Your task to perform on an android device: open a new tab in the chrome app Image 0: 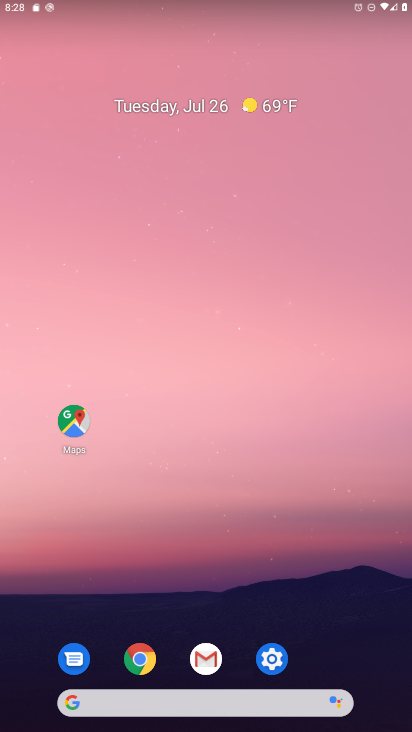
Step 0: click (135, 652)
Your task to perform on an android device: open a new tab in the chrome app Image 1: 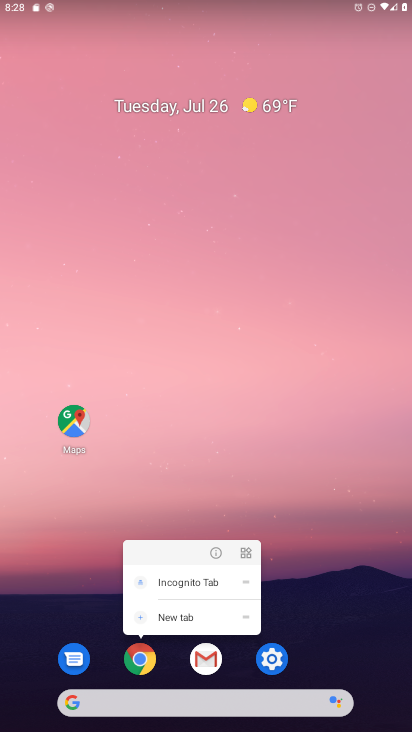
Step 1: click (134, 658)
Your task to perform on an android device: open a new tab in the chrome app Image 2: 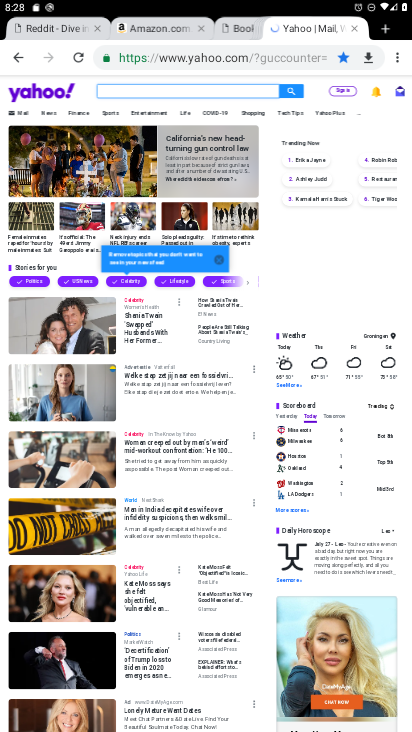
Step 2: click (379, 32)
Your task to perform on an android device: open a new tab in the chrome app Image 3: 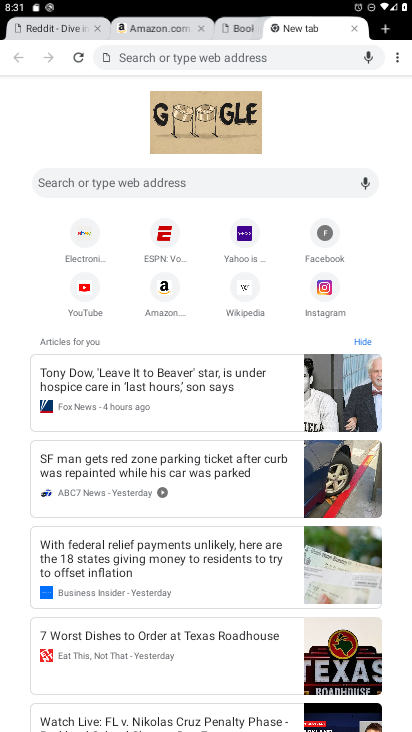
Step 3: task complete